Your task to perform on an android device: Search for the new nike shoes on Target Image 0: 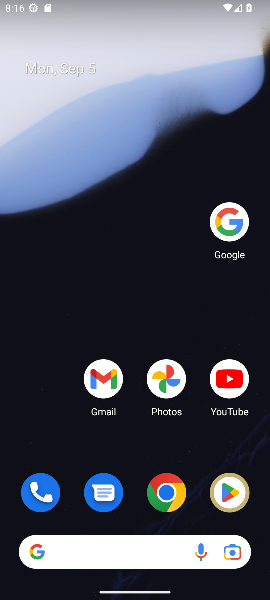
Step 0: click (233, 232)
Your task to perform on an android device: Search for the new nike shoes on Target Image 1: 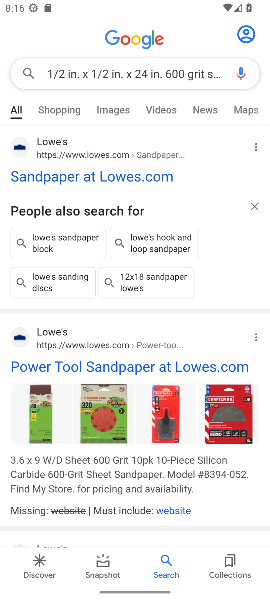
Step 1: click (167, 65)
Your task to perform on an android device: Search for the new nike shoes on Target Image 2: 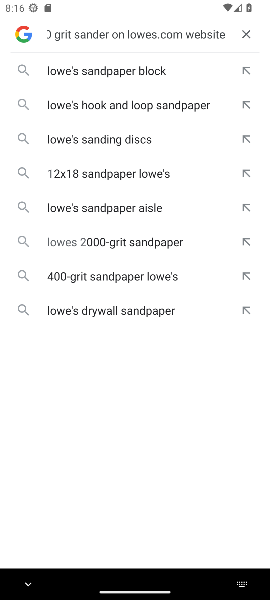
Step 2: click (245, 33)
Your task to perform on an android device: Search for the new nike shoes on Target Image 3: 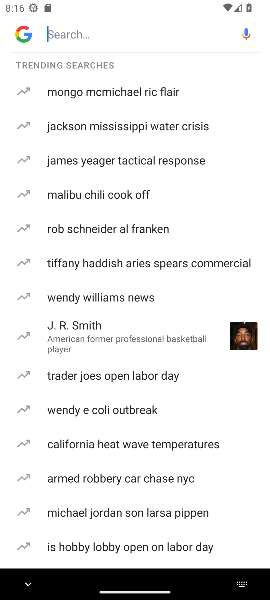
Step 3: type " the new nike shoes on Target "
Your task to perform on an android device: Search for the new nike shoes on Target Image 4: 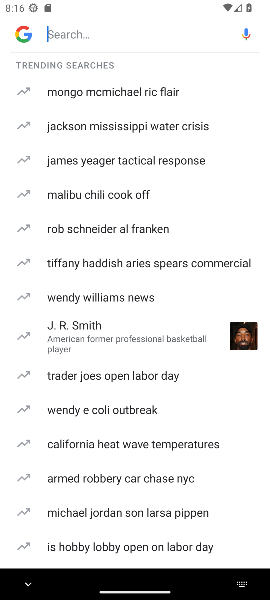
Step 4: click (101, 27)
Your task to perform on an android device: Search for the new nike shoes on Target Image 5: 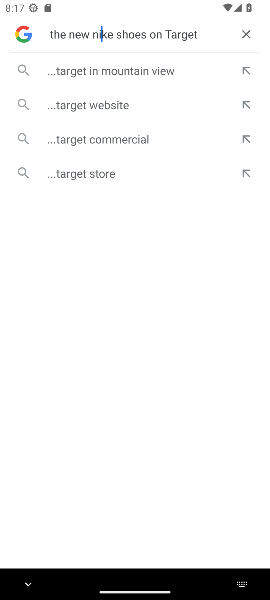
Step 5: click (103, 113)
Your task to perform on an android device: Search for the new nike shoes on Target Image 6: 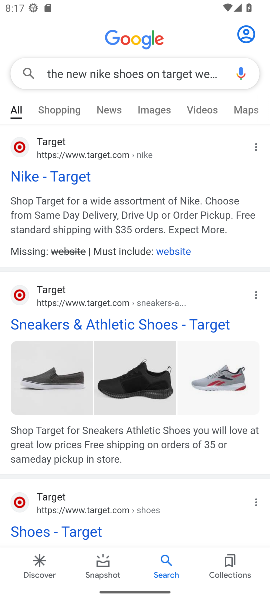
Step 6: click (59, 180)
Your task to perform on an android device: Search for the new nike shoes on Target Image 7: 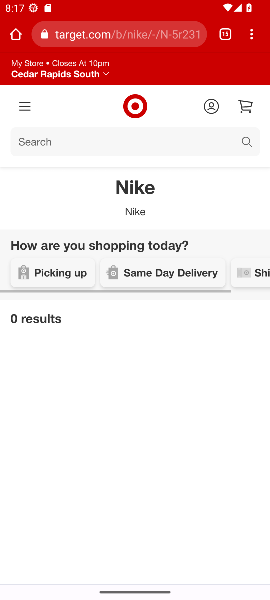
Step 7: task complete